Your task to perform on an android device: Open notification settings Image 0: 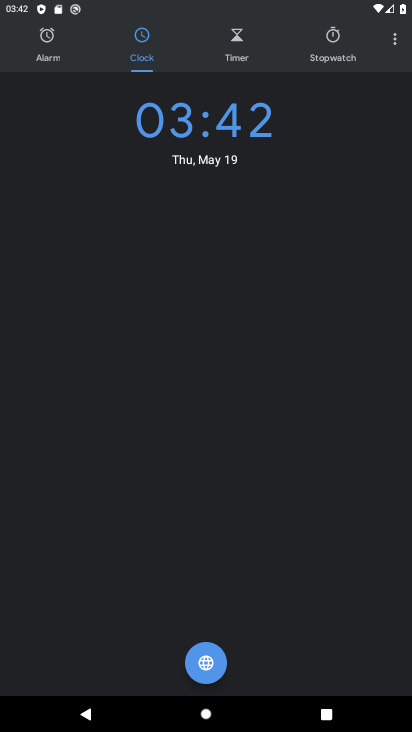
Step 0: press back button
Your task to perform on an android device: Open notification settings Image 1: 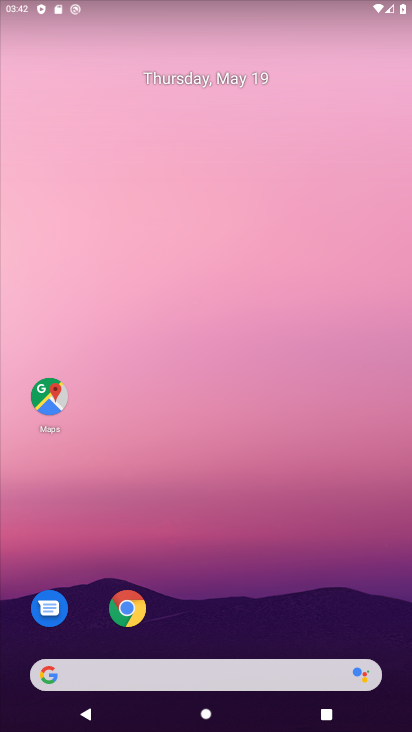
Step 1: drag from (295, 589) to (187, 53)
Your task to perform on an android device: Open notification settings Image 2: 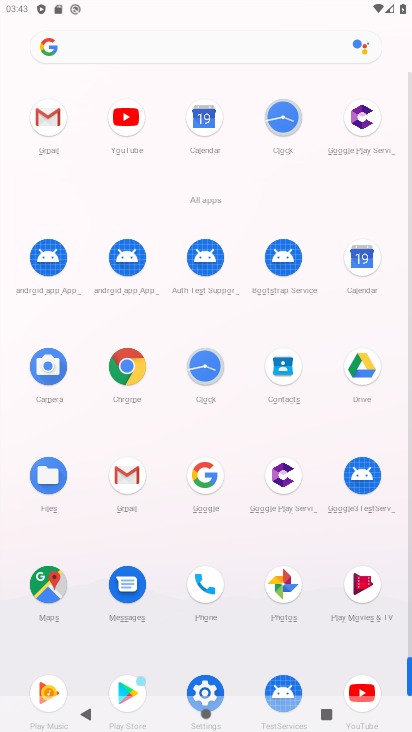
Step 2: drag from (242, 557) to (267, 429)
Your task to perform on an android device: Open notification settings Image 3: 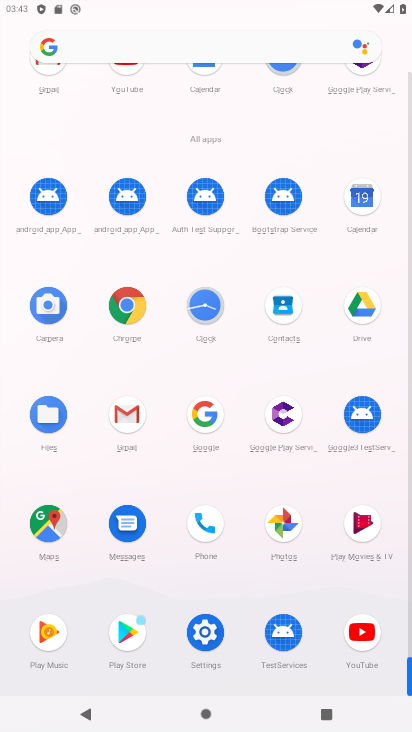
Step 3: click (204, 633)
Your task to perform on an android device: Open notification settings Image 4: 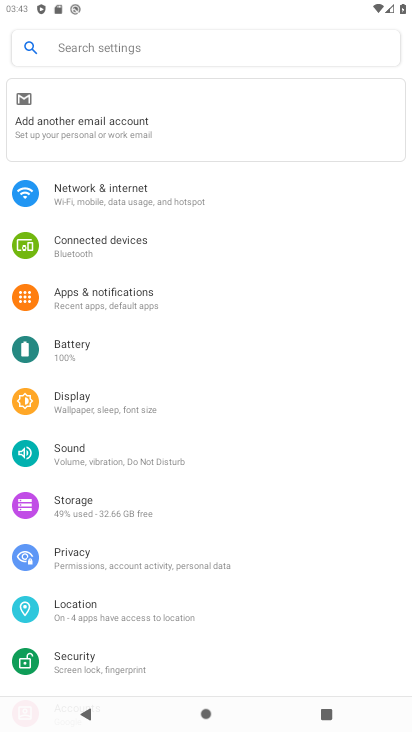
Step 4: click (118, 284)
Your task to perform on an android device: Open notification settings Image 5: 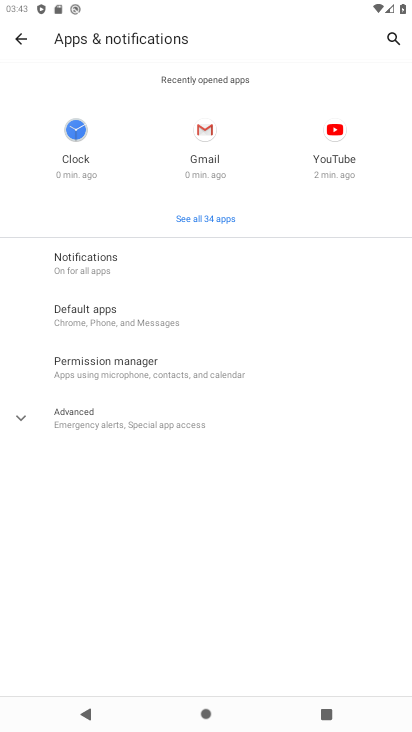
Step 5: click (103, 259)
Your task to perform on an android device: Open notification settings Image 6: 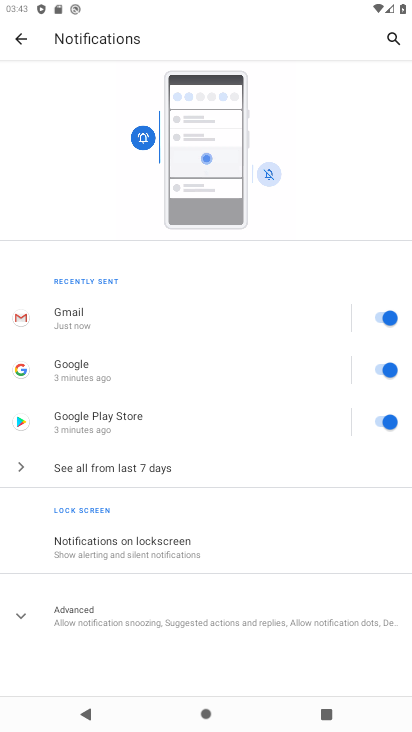
Step 6: task complete